Your task to perform on an android device: Open the phone app and click the voicemail tab. Image 0: 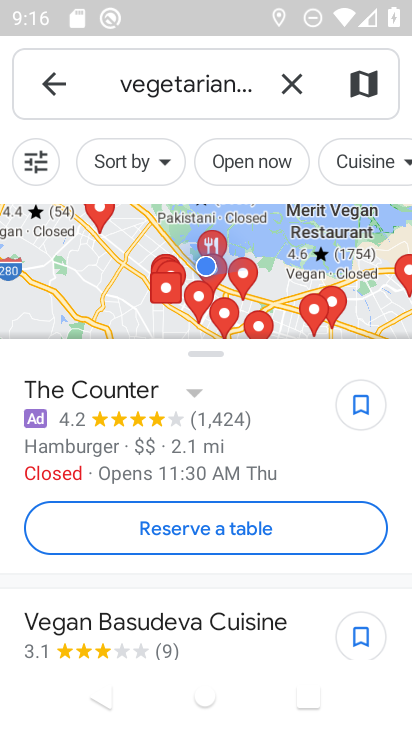
Step 0: press home button
Your task to perform on an android device: Open the phone app and click the voicemail tab. Image 1: 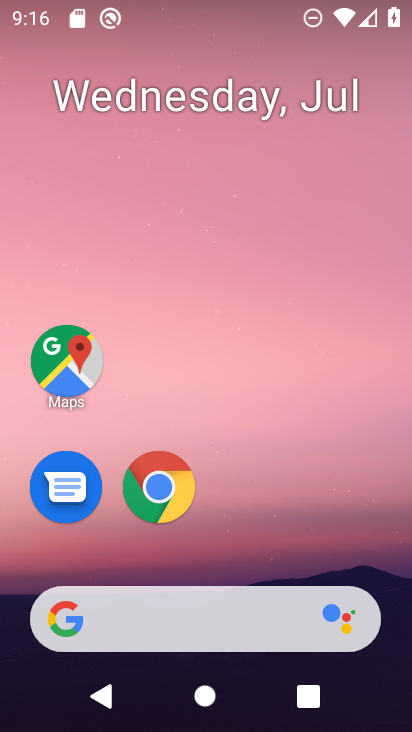
Step 1: drag from (347, 518) to (374, 83)
Your task to perform on an android device: Open the phone app and click the voicemail tab. Image 2: 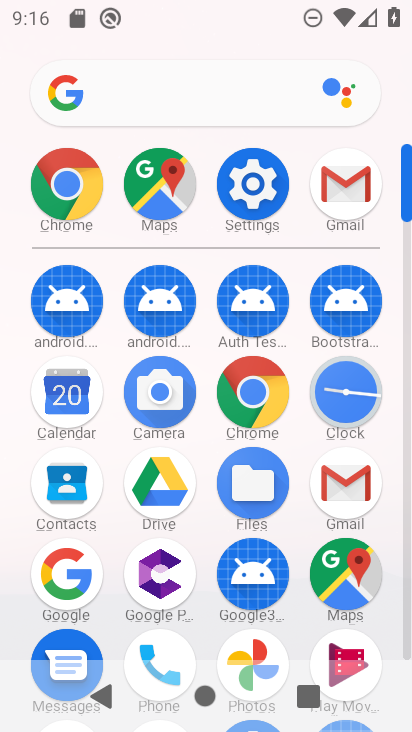
Step 2: drag from (407, 599) to (409, 511)
Your task to perform on an android device: Open the phone app and click the voicemail tab. Image 3: 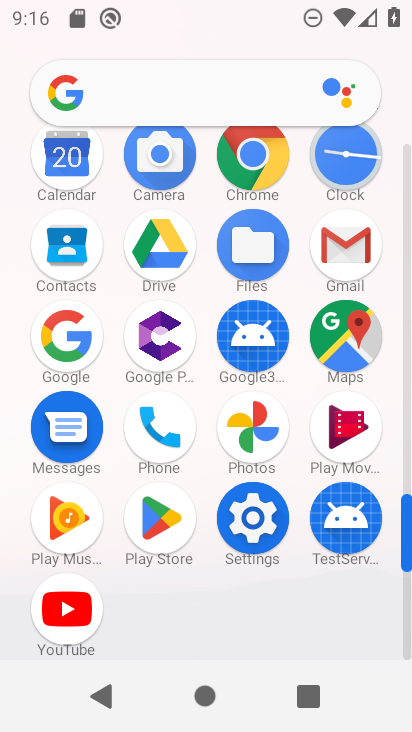
Step 3: click (169, 424)
Your task to perform on an android device: Open the phone app and click the voicemail tab. Image 4: 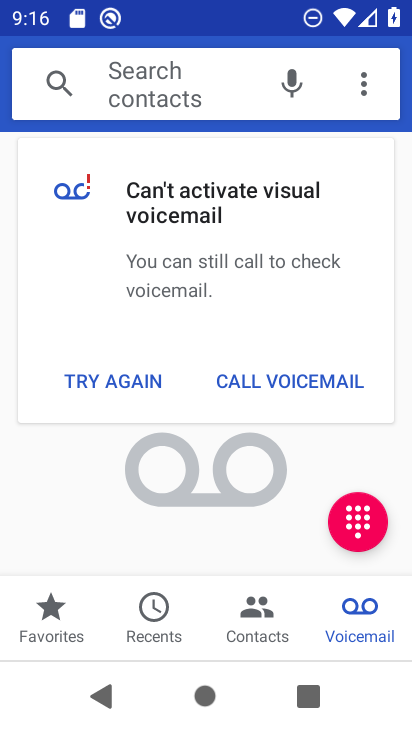
Step 4: task complete